Your task to perform on an android device: Is it going to rain today? Image 0: 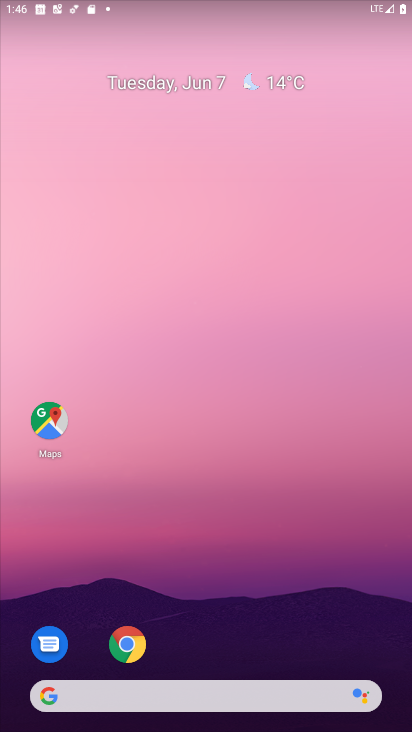
Step 0: click (201, 687)
Your task to perform on an android device: Is it going to rain today? Image 1: 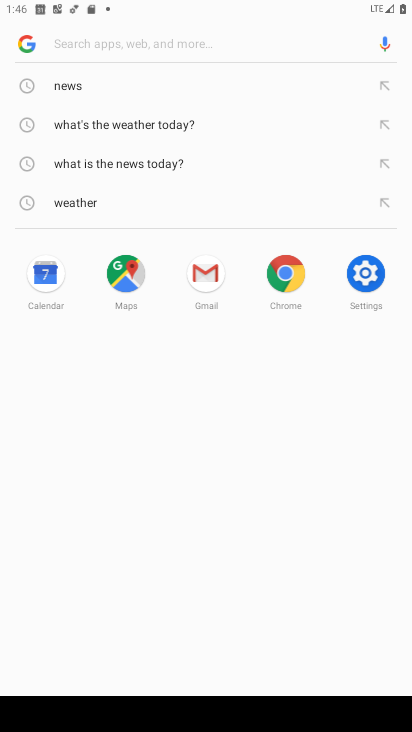
Step 1: type "is it going to rain today "
Your task to perform on an android device: Is it going to rain today? Image 2: 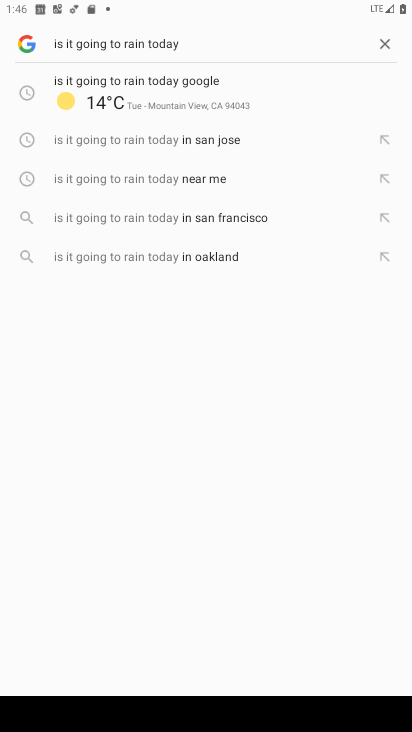
Step 2: click (145, 80)
Your task to perform on an android device: Is it going to rain today? Image 3: 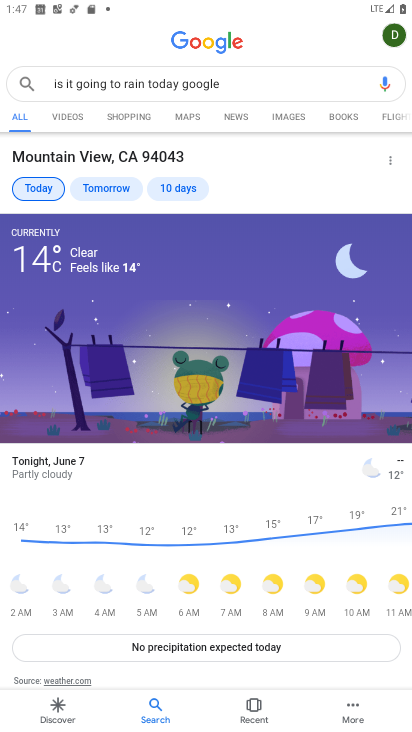
Step 3: task complete